Your task to perform on an android device: Go to calendar. Show me events next week Image 0: 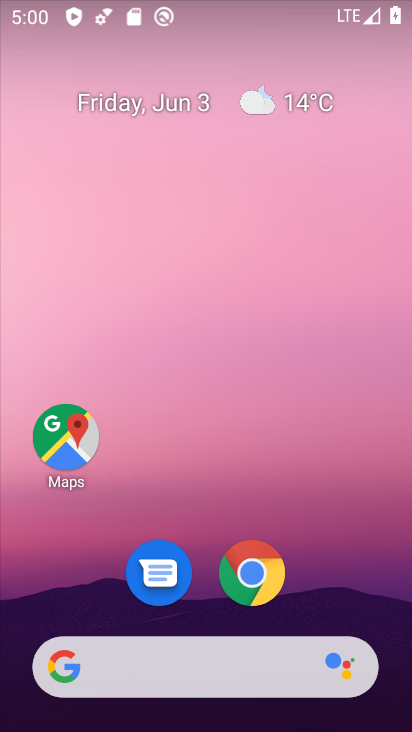
Step 0: click (292, 45)
Your task to perform on an android device: Go to calendar. Show me events next week Image 1: 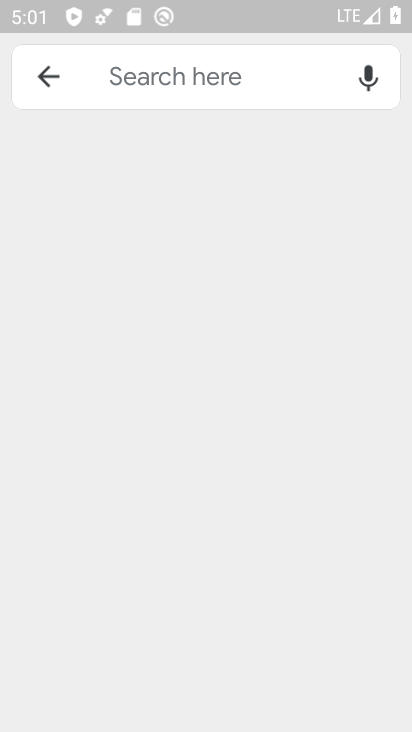
Step 1: press home button
Your task to perform on an android device: Go to calendar. Show me events next week Image 2: 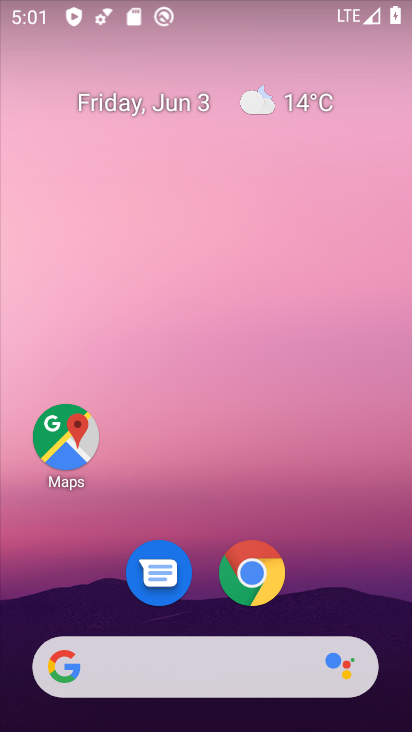
Step 2: drag from (325, 510) to (325, 13)
Your task to perform on an android device: Go to calendar. Show me events next week Image 3: 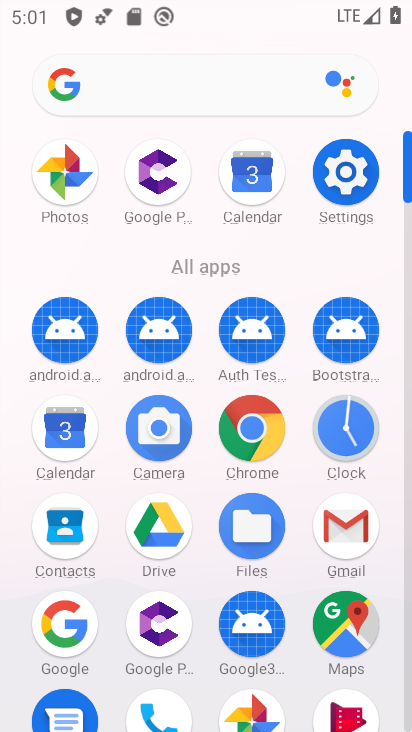
Step 3: click (266, 178)
Your task to perform on an android device: Go to calendar. Show me events next week Image 4: 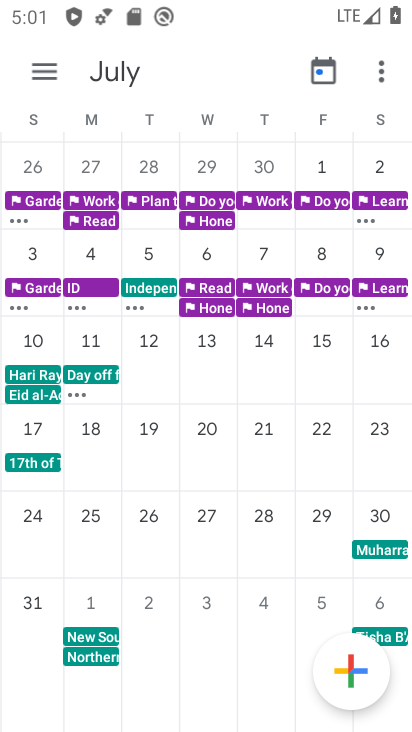
Step 4: task complete